Your task to perform on an android device: Search for Mexican restaurants on Maps Image 0: 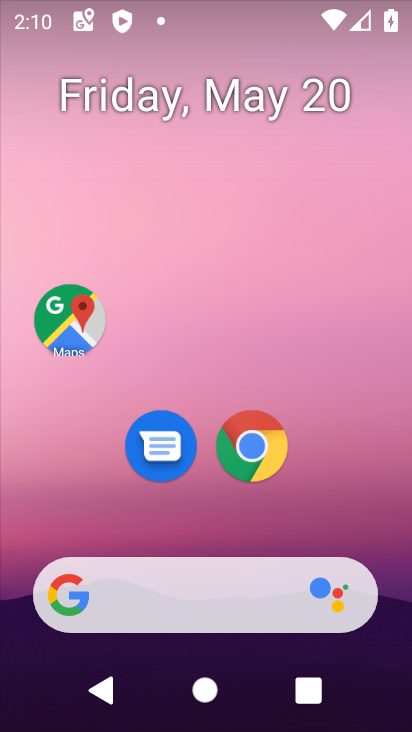
Step 0: click (70, 317)
Your task to perform on an android device: Search for Mexican restaurants on Maps Image 1: 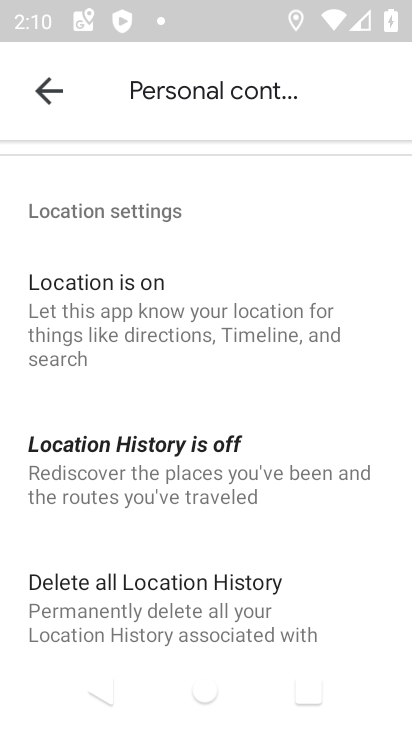
Step 1: click (41, 92)
Your task to perform on an android device: Search for Mexican restaurants on Maps Image 2: 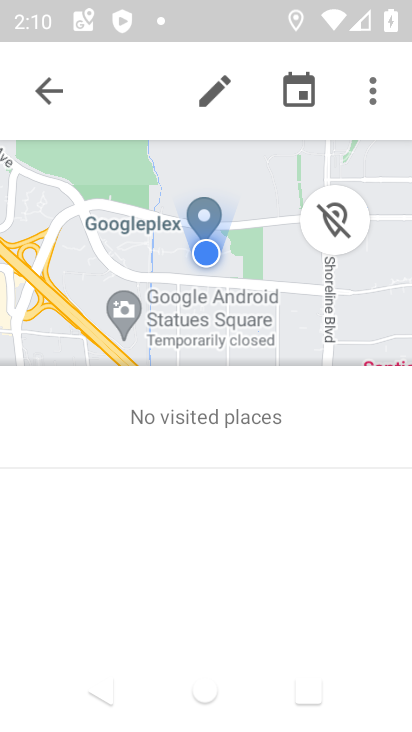
Step 2: click (41, 92)
Your task to perform on an android device: Search for Mexican restaurants on Maps Image 3: 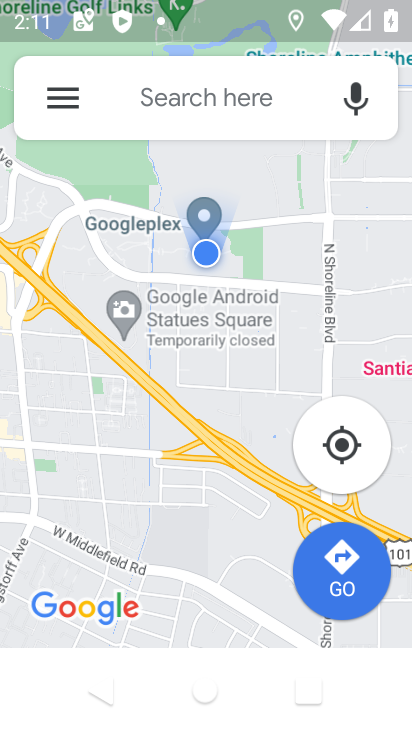
Step 3: click (151, 99)
Your task to perform on an android device: Search for Mexican restaurants on Maps Image 4: 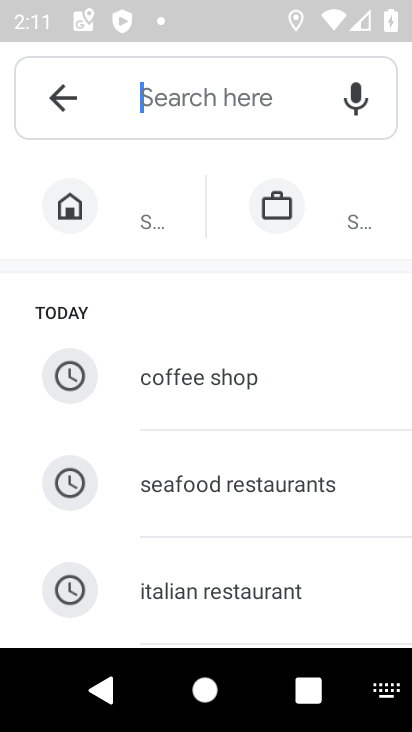
Step 4: type "mexican restaurant"
Your task to perform on an android device: Search for Mexican restaurants on Maps Image 5: 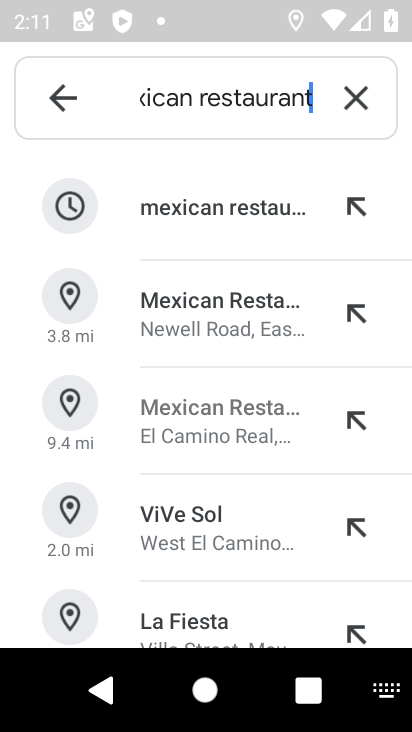
Step 5: click (202, 210)
Your task to perform on an android device: Search for Mexican restaurants on Maps Image 6: 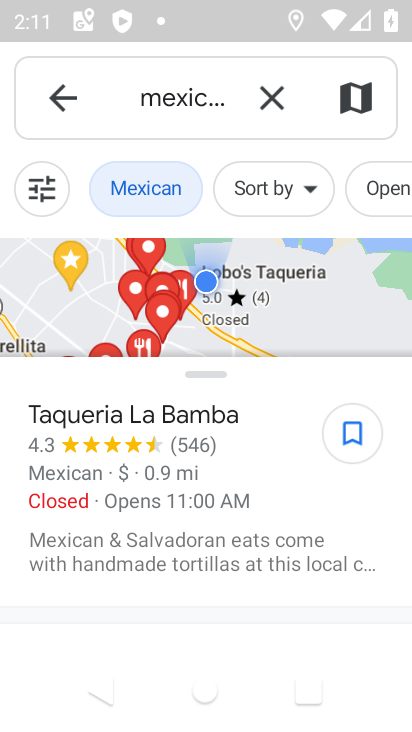
Step 6: task complete